Your task to perform on an android device: Search for flights from Buenos aires to Helsinki Image 0: 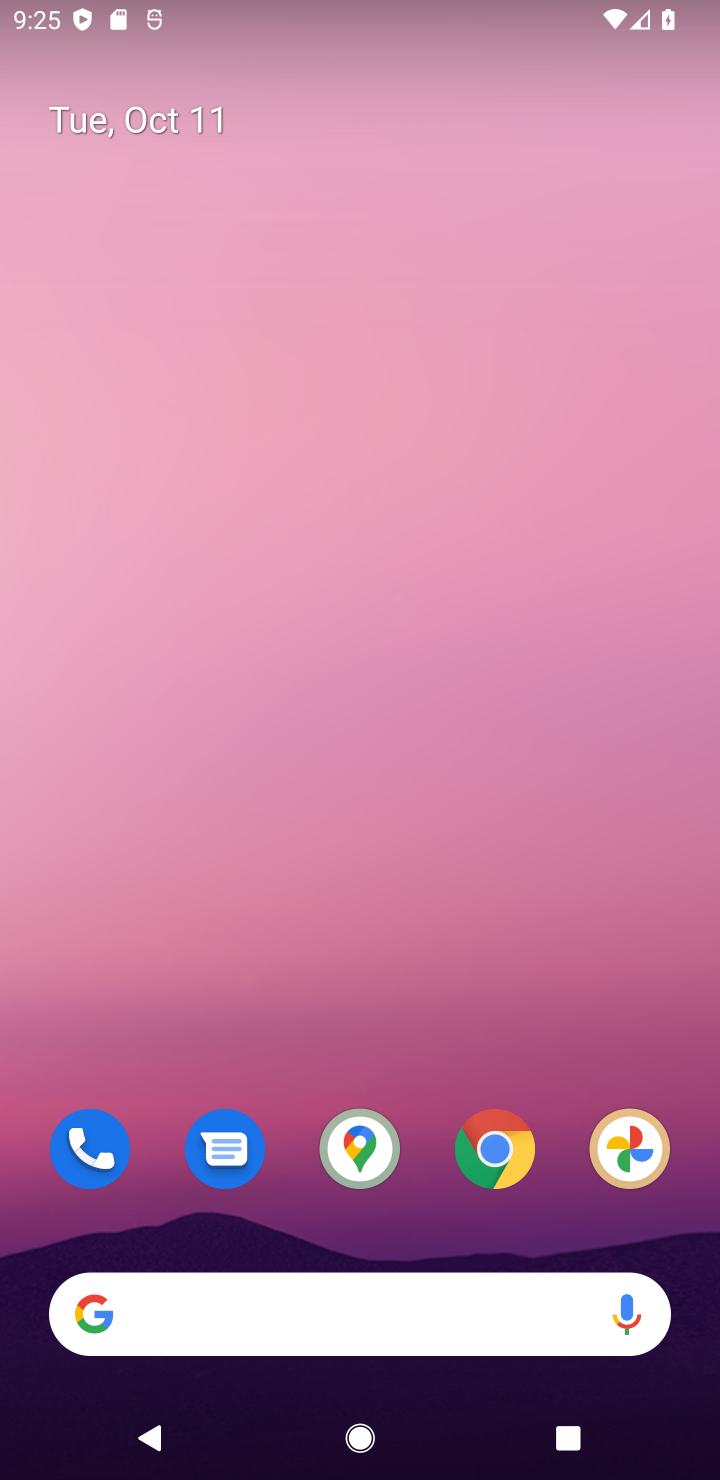
Step 0: click (290, 1299)
Your task to perform on an android device: Search for flights from Buenos aires to Helsinki Image 1: 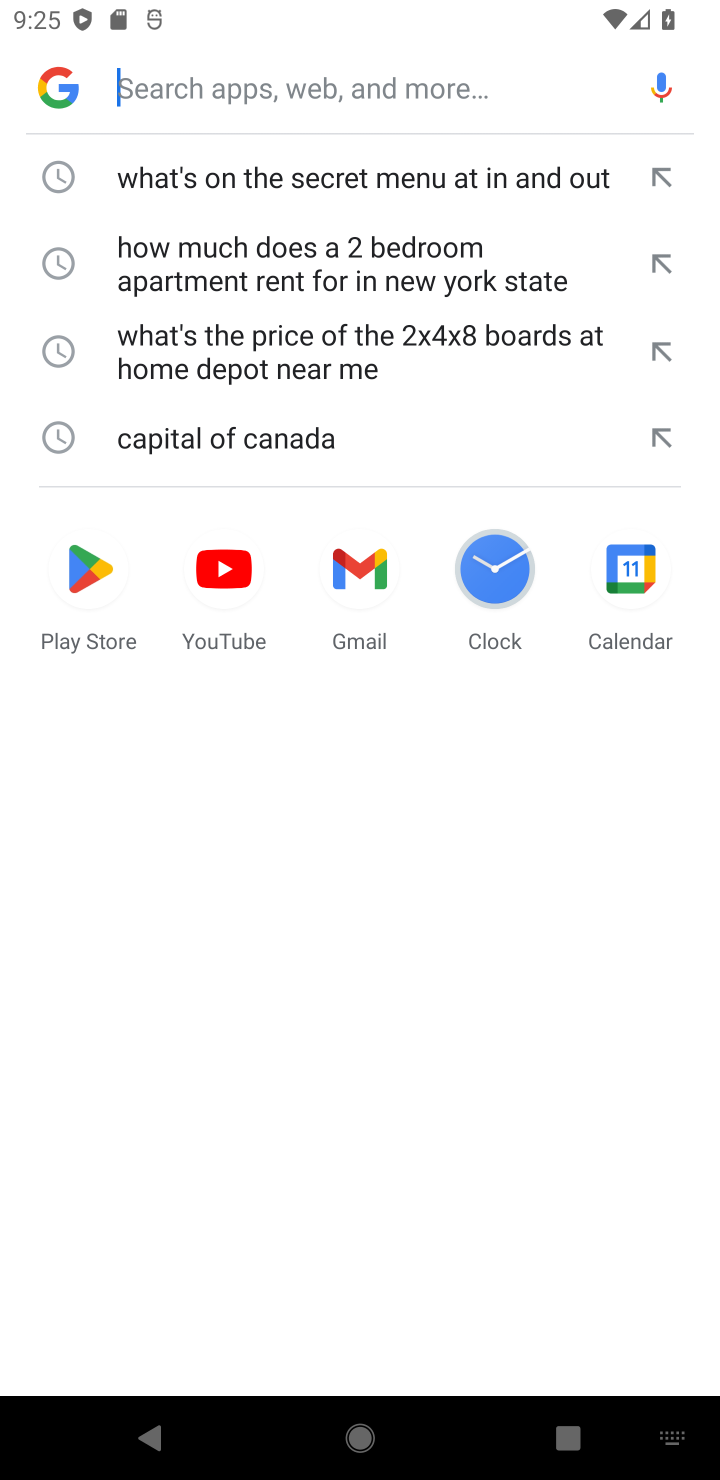
Step 1: type "Search for flights from Buenos aires to Helsinki"
Your task to perform on an android device: Search for flights from Buenos aires to Helsinki Image 2: 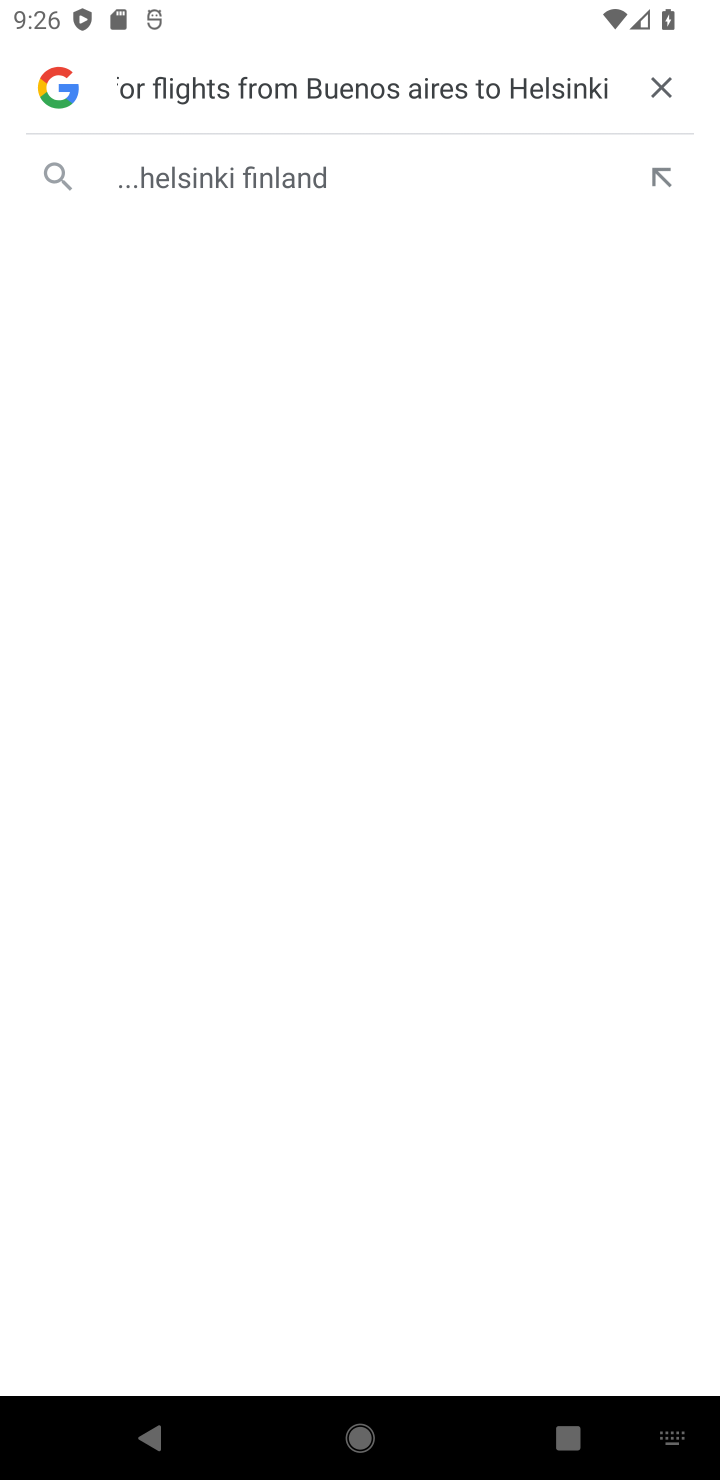
Step 2: click (256, 168)
Your task to perform on an android device: Search for flights from Buenos aires to Helsinki Image 3: 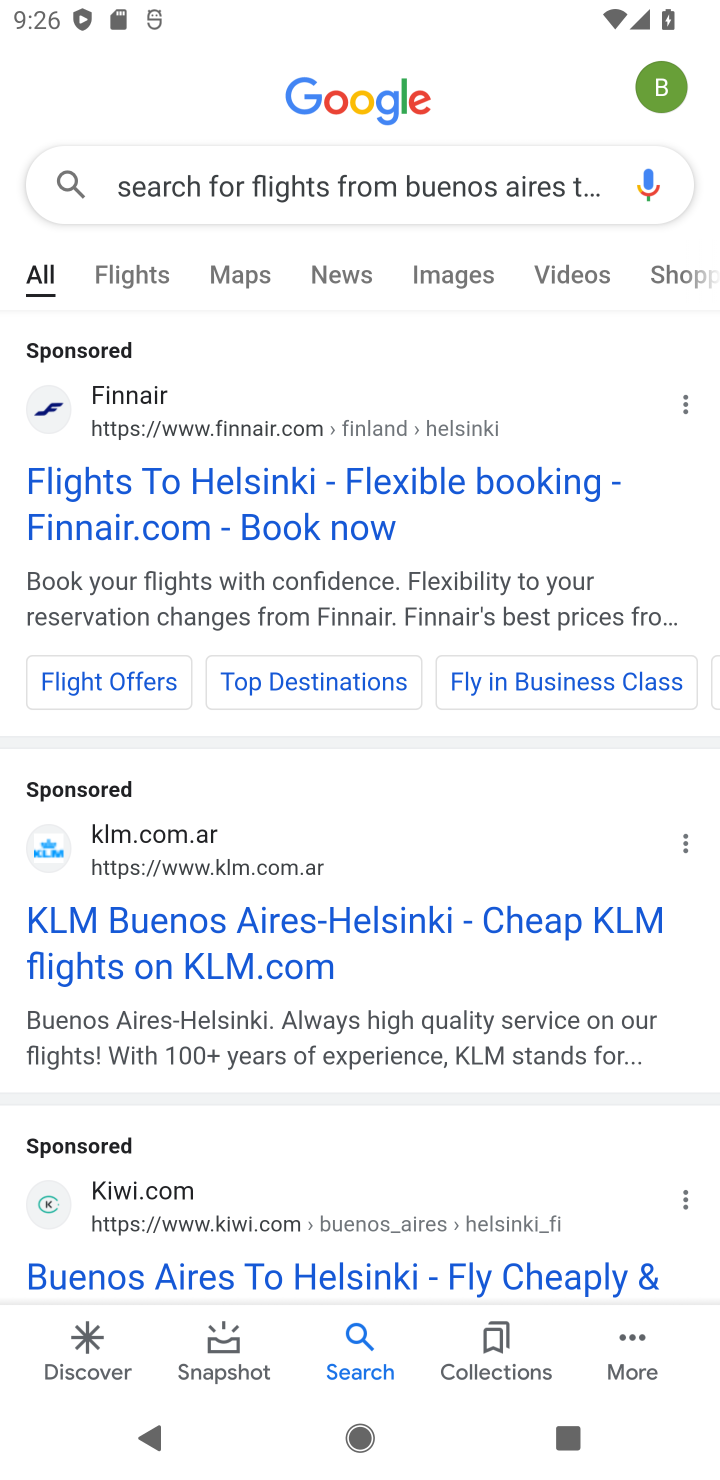
Step 3: click (330, 513)
Your task to perform on an android device: Search for flights from Buenos aires to Helsinki Image 4: 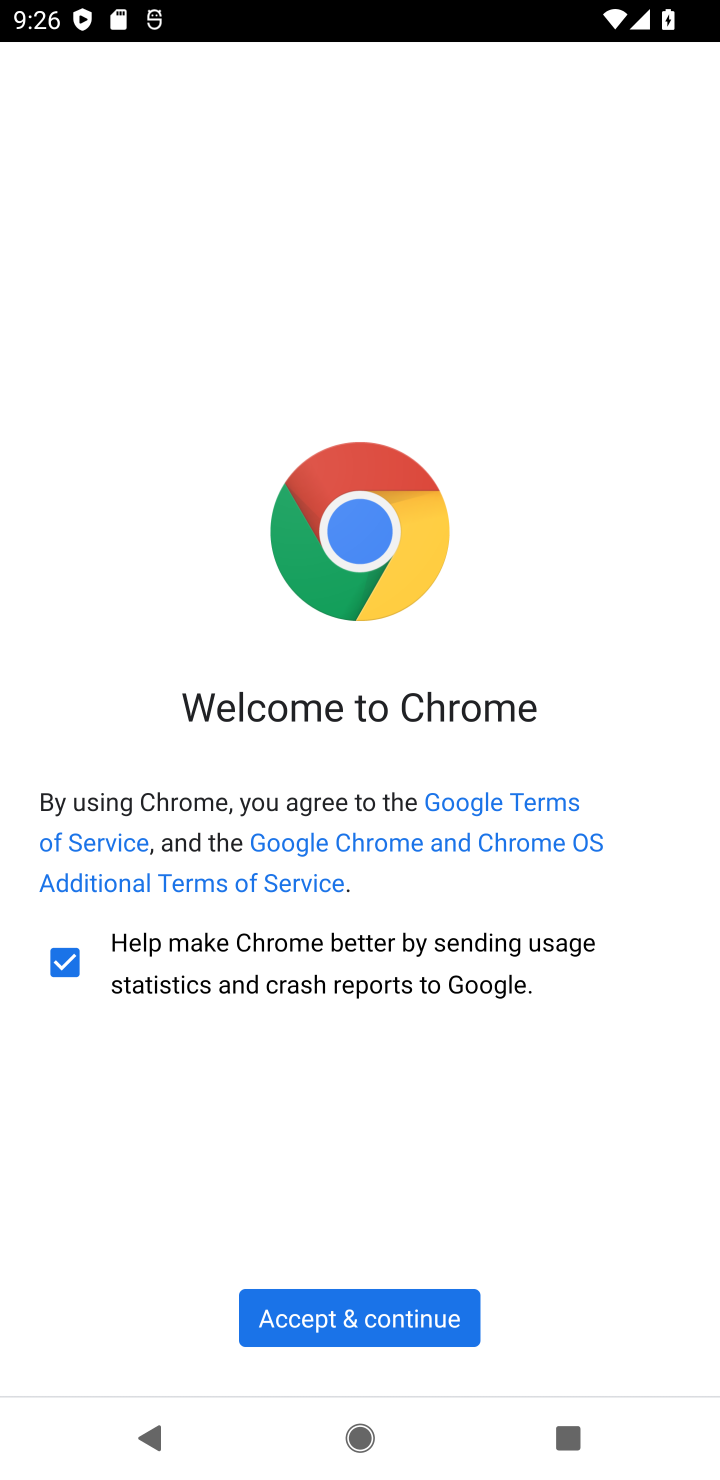
Step 4: click (356, 1325)
Your task to perform on an android device: Search for flights from Buenos aires to Helsinki Image 5: 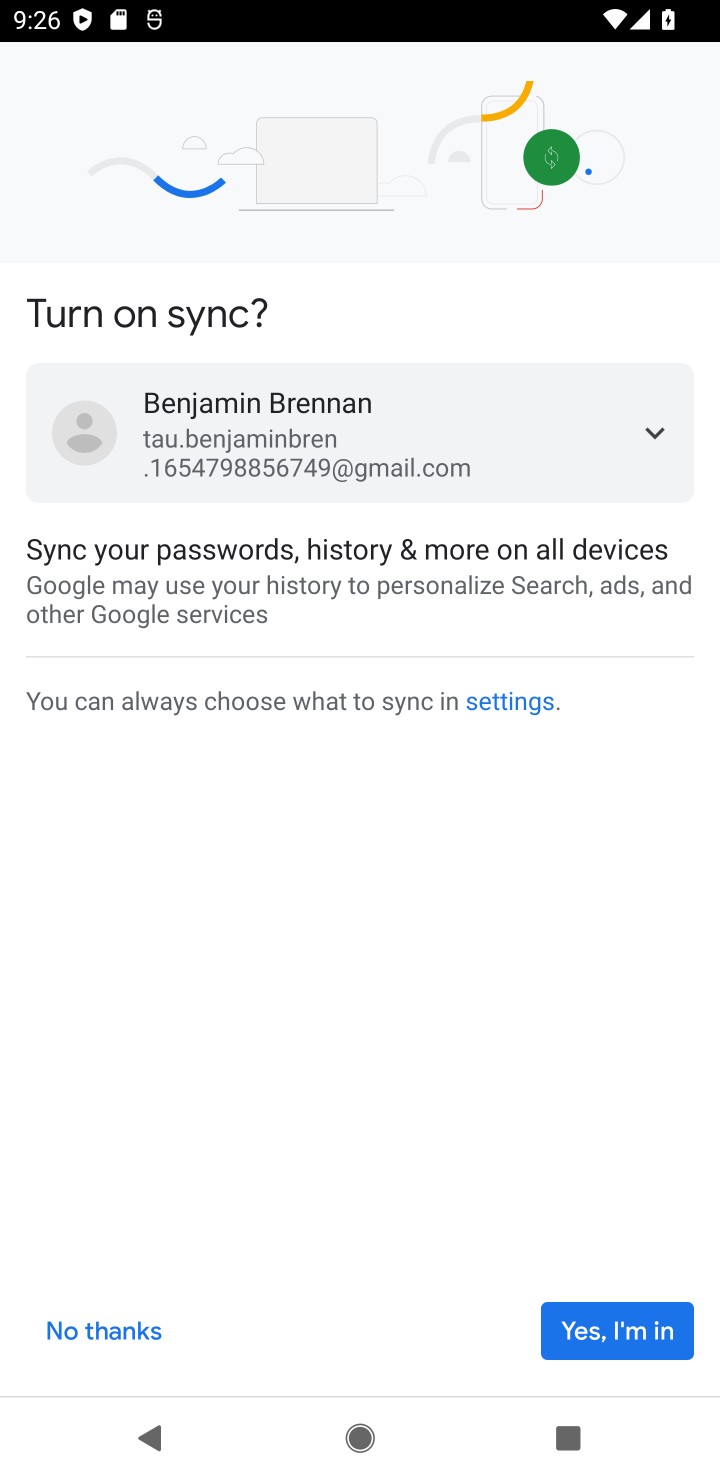
Step 5: click (637, 1304)
Your task to perform on an android device: Search for flights from Buenos aires to Helsinki Image 6: 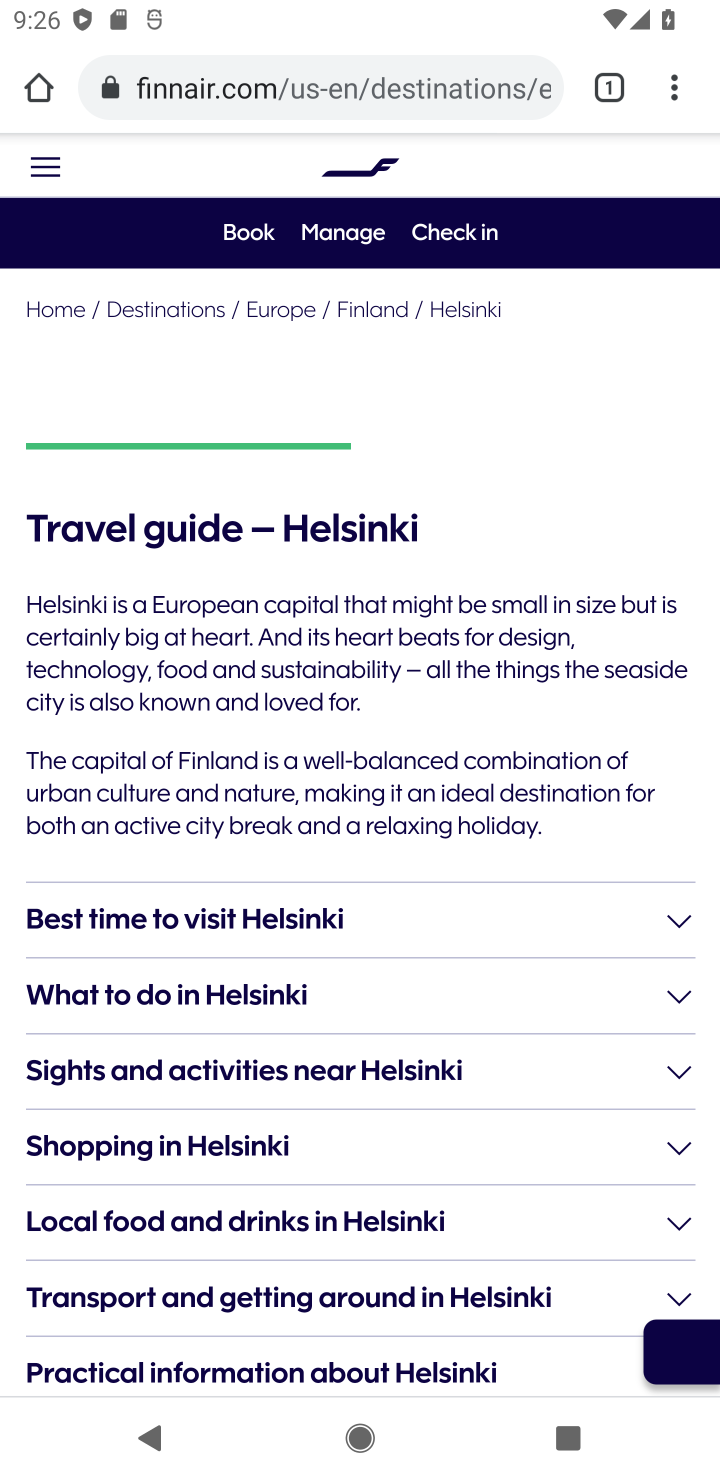
Step 6: drag from (413, 1197) to (398, 683)
Your task to perform on an android device: Search for flights from Buenos aires to Helsinki Image 7: 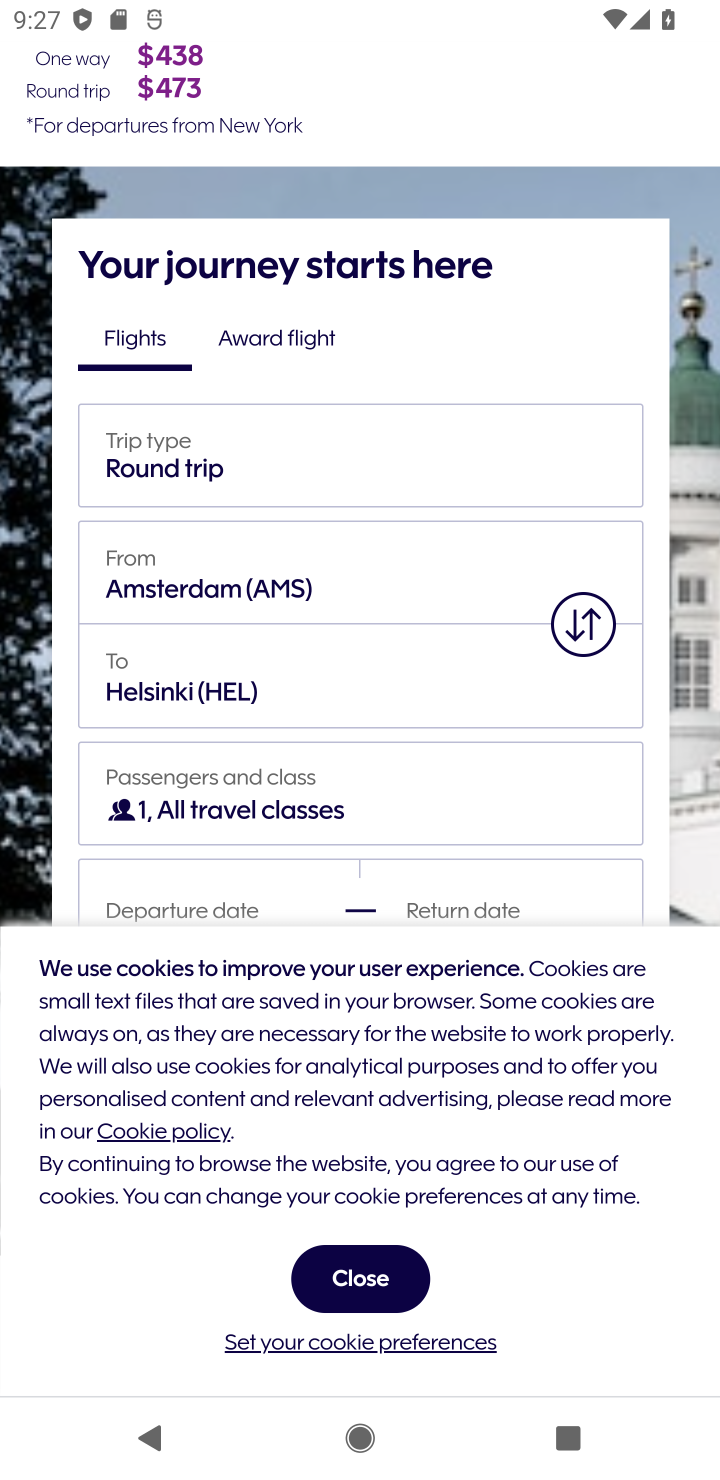
Step 7: click (479, 306)
Your task to perform on an android device: Search for flights from Buenos aires to Helsinki Image 8: 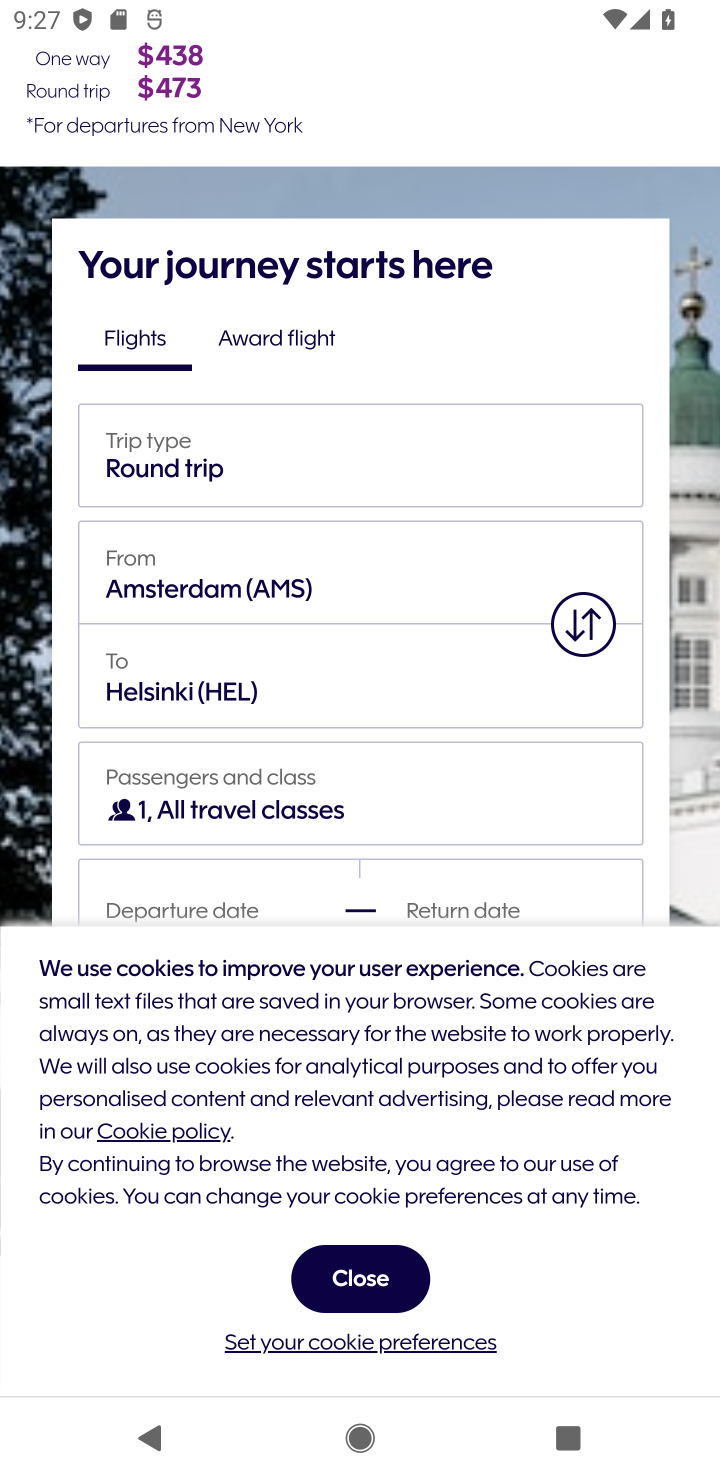
Step 8: click (364, 1287)
Your task to perform on an android device: Search for flights from Buenos aires to Helsinki Image 9: 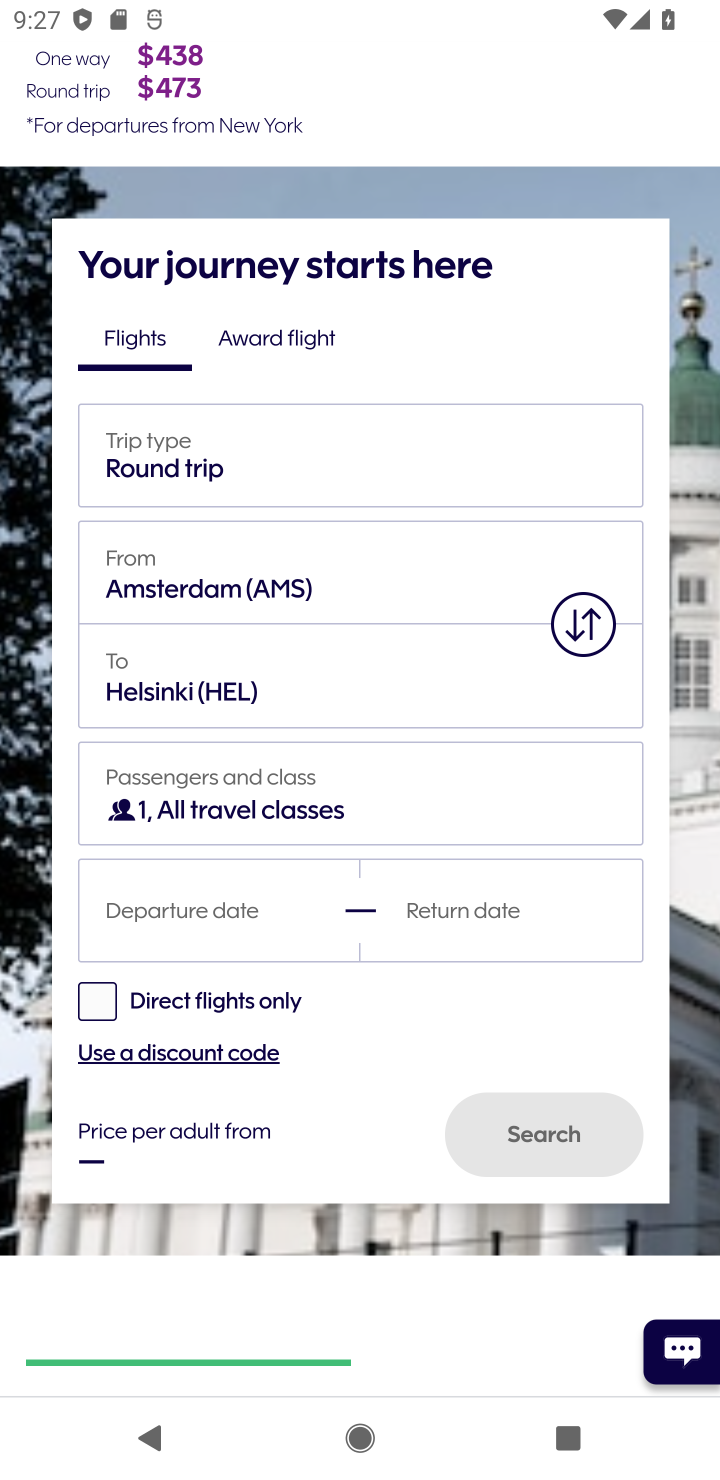
Step 9: task complete